Your task to perform on an android device: turn on improve location accuracy Image 0: 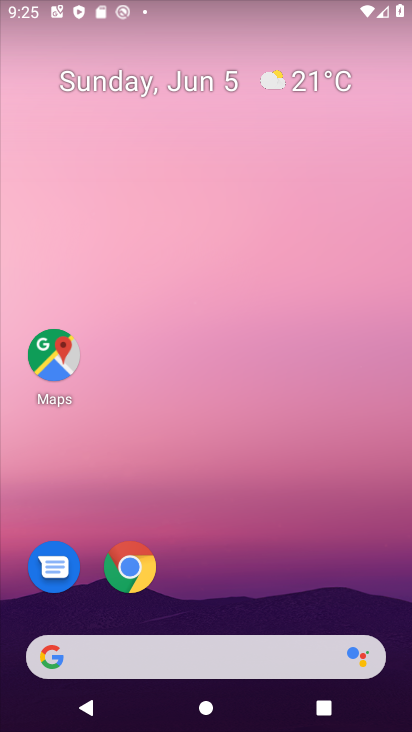
Step 0: drag from (244, 636) to (256, 275)
Your task to perform on an android device: turn on improve location accuracy Image 1: 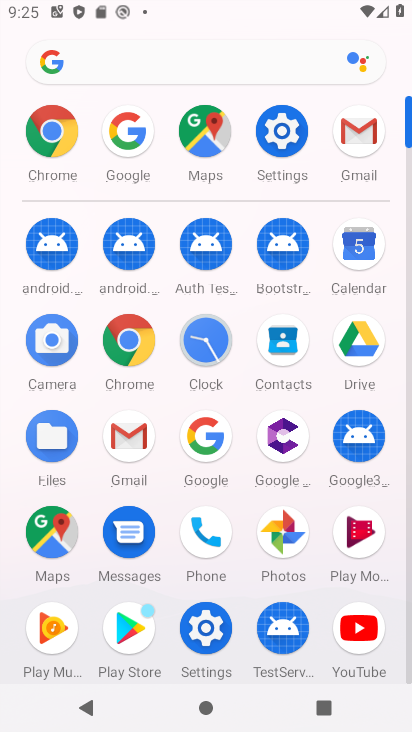
Step 1: click (285, 145)
Your task to perform on an android device: turn on improve location accuracy Image 2: 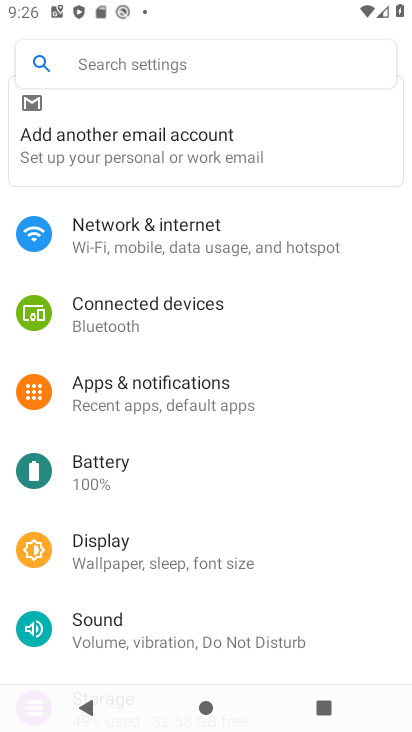
Step 2: drag from (228, 626) to (231, 271)
Your task to perform on an android device: turn on improve location accuracy Image 3: 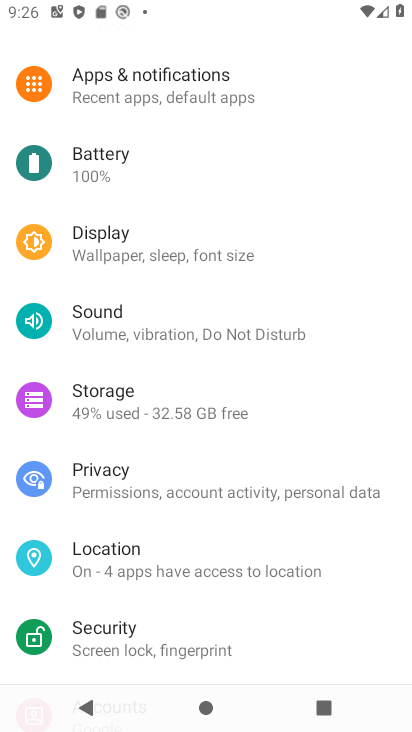
Step 3: click (175, 566)
Your task to perform on an android device: turn on improve location accuracy Image 4: 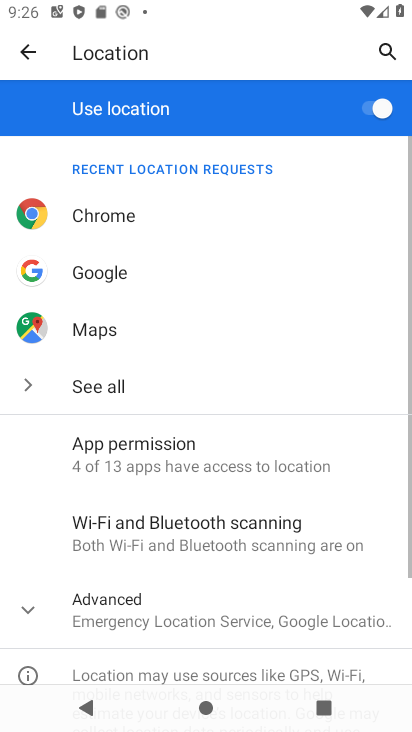
Step 4: click (164, 608)
Your task to perform on an android device: turn on improve location accuracy Image 5: 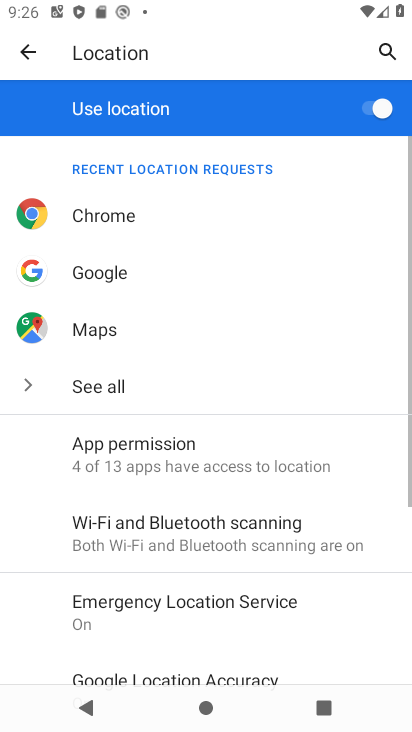
Step 5: drag from (161, 656) to (211, 226)
Your task to perform on an android device: turn on improve location accuracy Image 6: 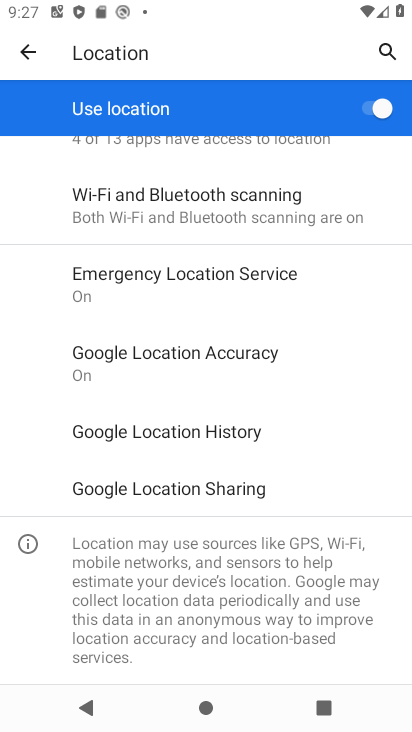
Step 6: click (180, 352)
Your task to perform on an android device: turn on improve location accuracy Image 7: 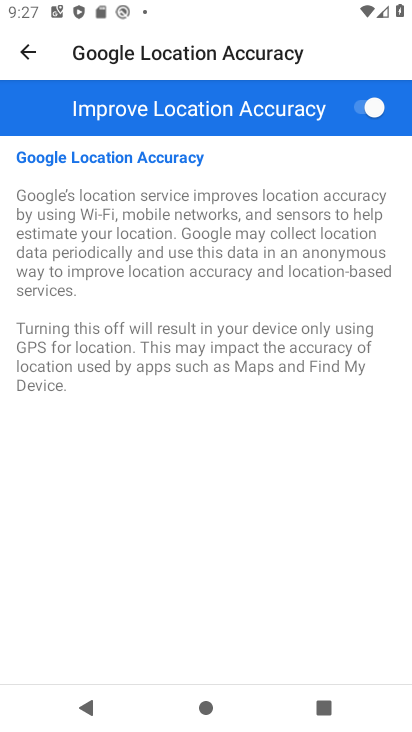
Step 7: task complete